Your task to perform on an android device: toggle pop-ups in chrome Image 0: 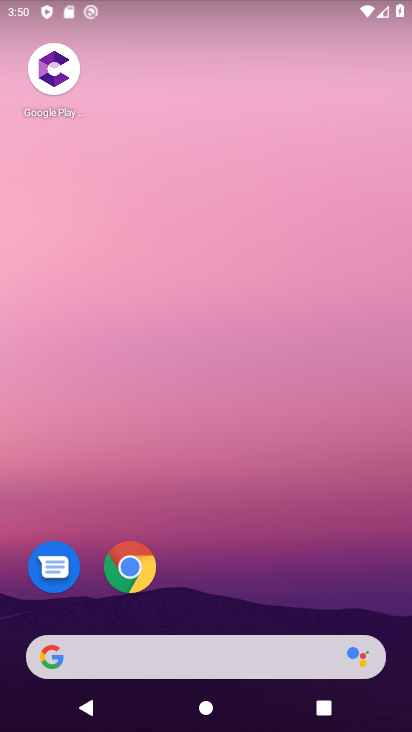
Step 0: click (135, 566)
Your task to perform on an android device: toggle pop-ups in chrome Image 1: 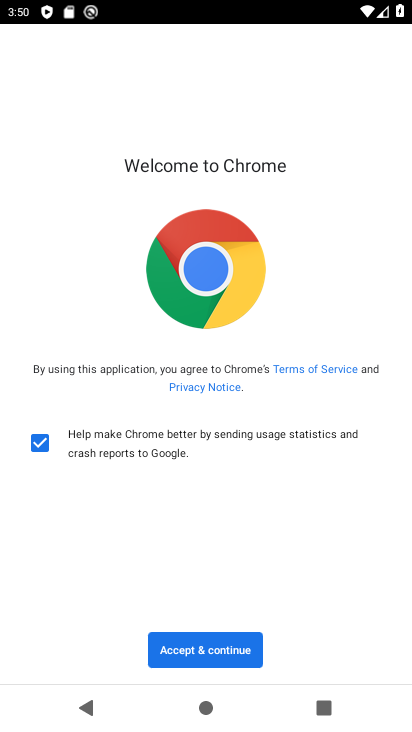
Step 1: click (208, 653)
Your task to perform on an android device: toggle pop-ups in chrome Image 2: 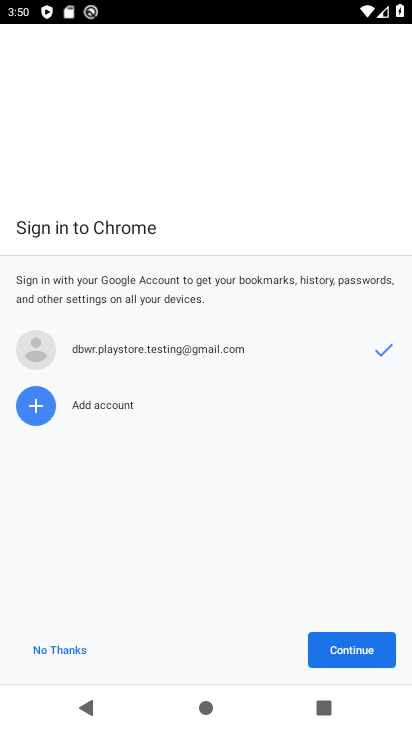
Step 2: click (370, 657)
Your task to perform on an android device: toggle pop-ups in chrome Image 3: 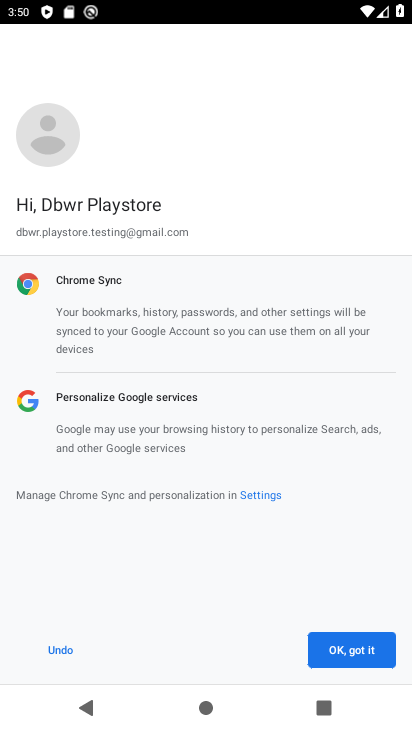
Step 3: click (371, 655)
Your task to perform on an android device: toggle pop-ups in chrome Image 4: 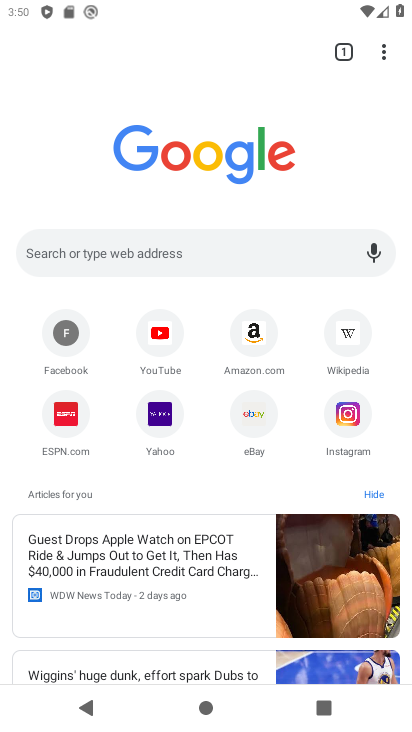
Step 4: click (385, 45)
Your task to perform on an android device: toggle pop-ups in chrome Image 5: 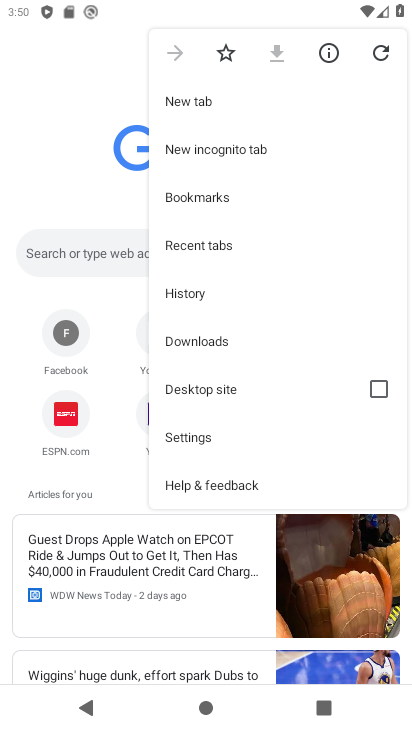
Step 5: click (193, 436)
Your task to perform on an android device: toggle pop-ups in chrome Image 6: 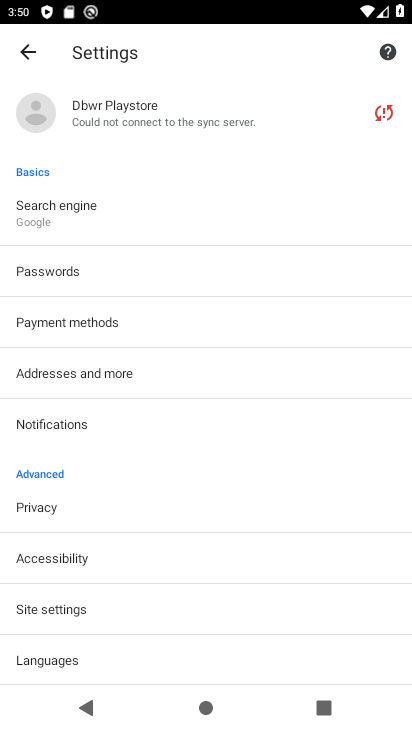
Step 6: click (37, 612)
Your task to perform on an android device: toggle pop-ups in chrome Image 7: 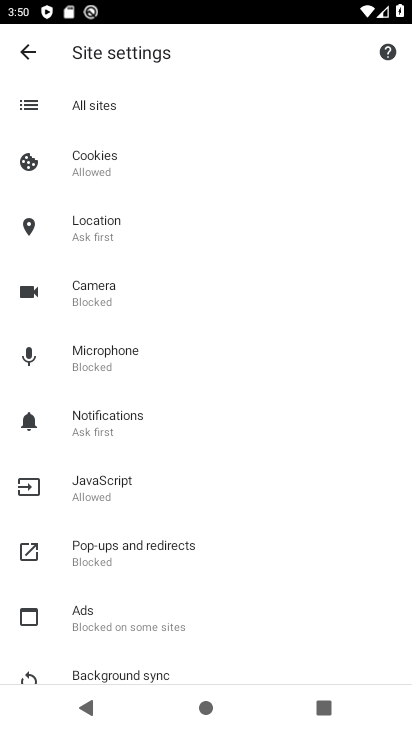
Step 7: click (126, 547)
Your task to perform on an android device: toggle pop-ups in chrome Image 8: 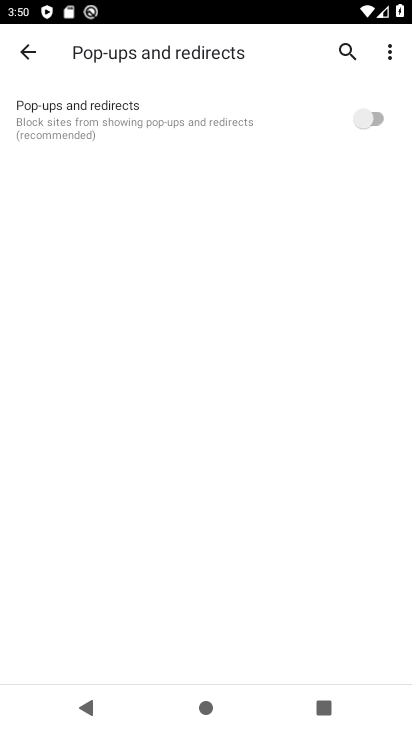
Step 8: click (369, 123)
Your task to perform on an android device: toggle pop-ups in chrome Image 9: 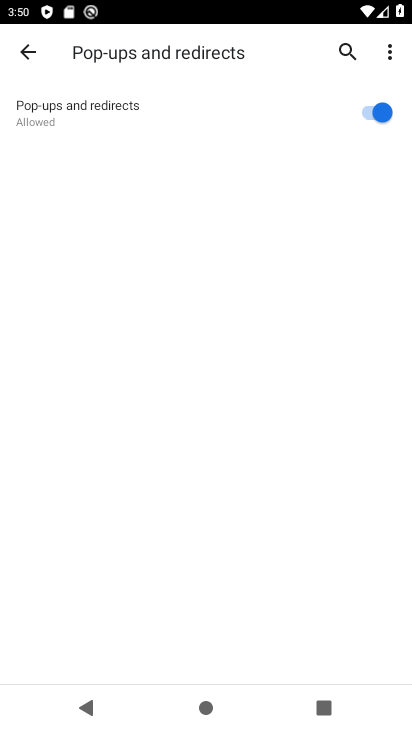
Step 9: task complete